Your task to perform on an android device: turn on wifi Image 0: 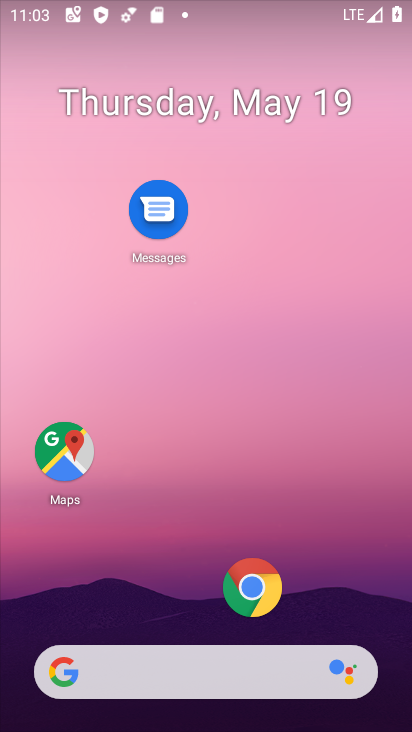
Step 0: drag from (243, 13) to (215, 618)
Your task to perform on an android device: turn on wifi Image 1: 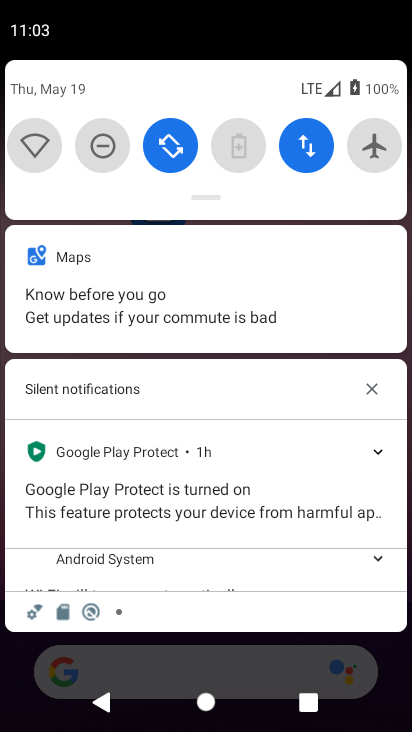
Step 1: click (24, 156)
Your task to perform on an android device: turn on wifi Image 2: 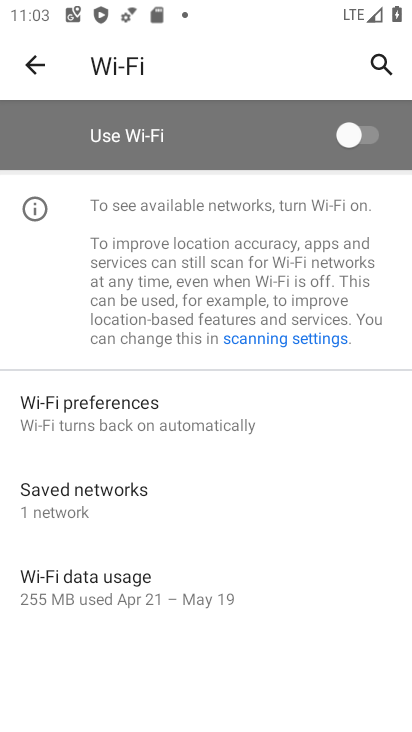
Step 2: task complete